Your task to perform on an android device: What's the weather going to be this weekend? Image 0: 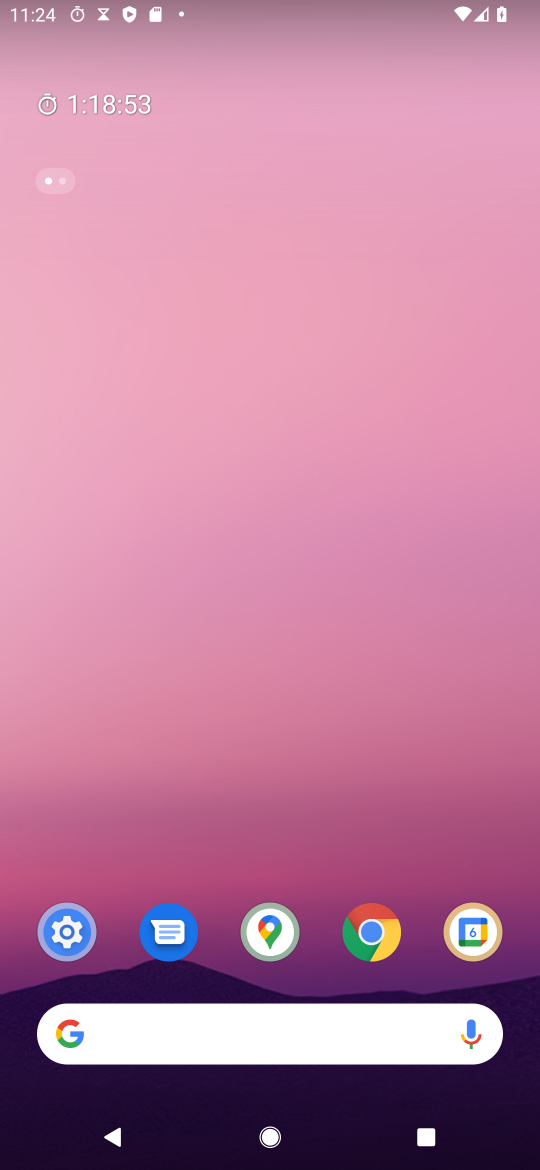
Step 0: click (374, 948)
Your task to perform on an android device: What's the weather going to be this weekend? Image 1: 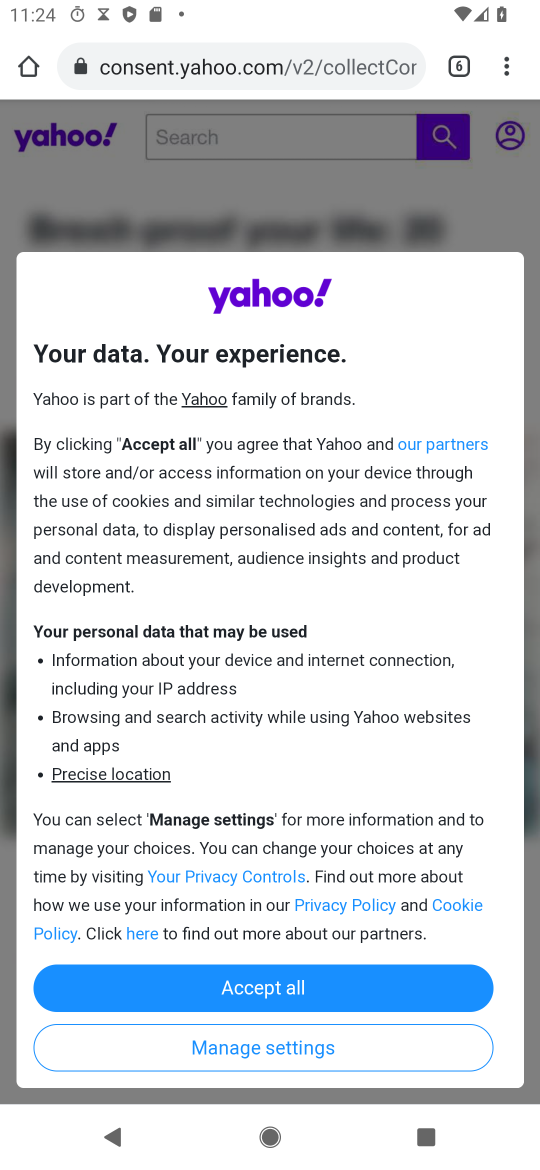
Step 1: click (139, 79)
Your task to perform on an android device: What's the weather going to be this weekend? Image 2: 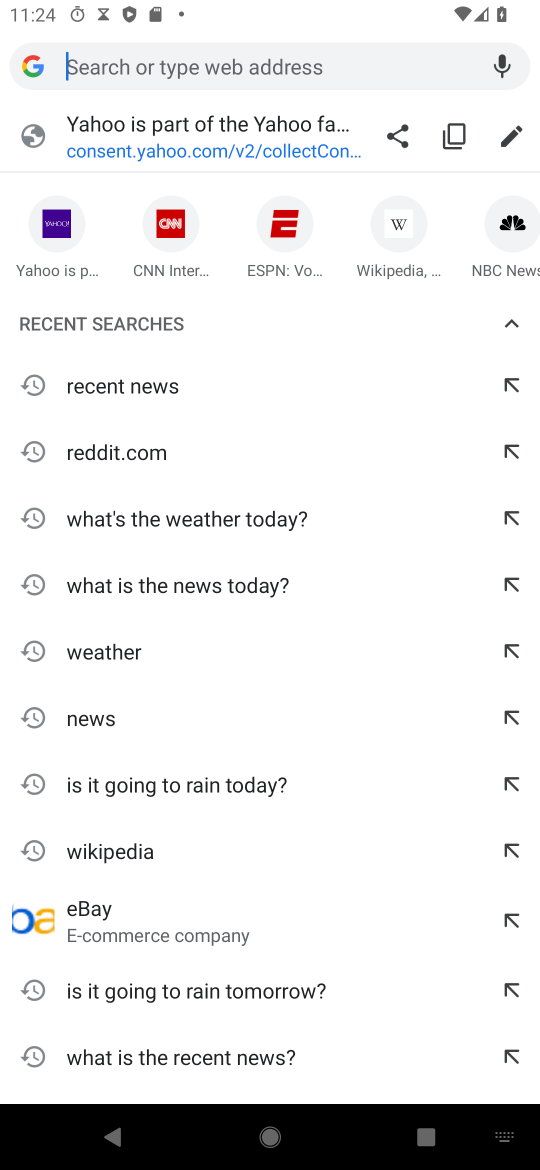
Step 2: type "What's the weather going to be this weekend?"
Your task to perform on an android device: What's the weather going to be this weekend? Image 3: 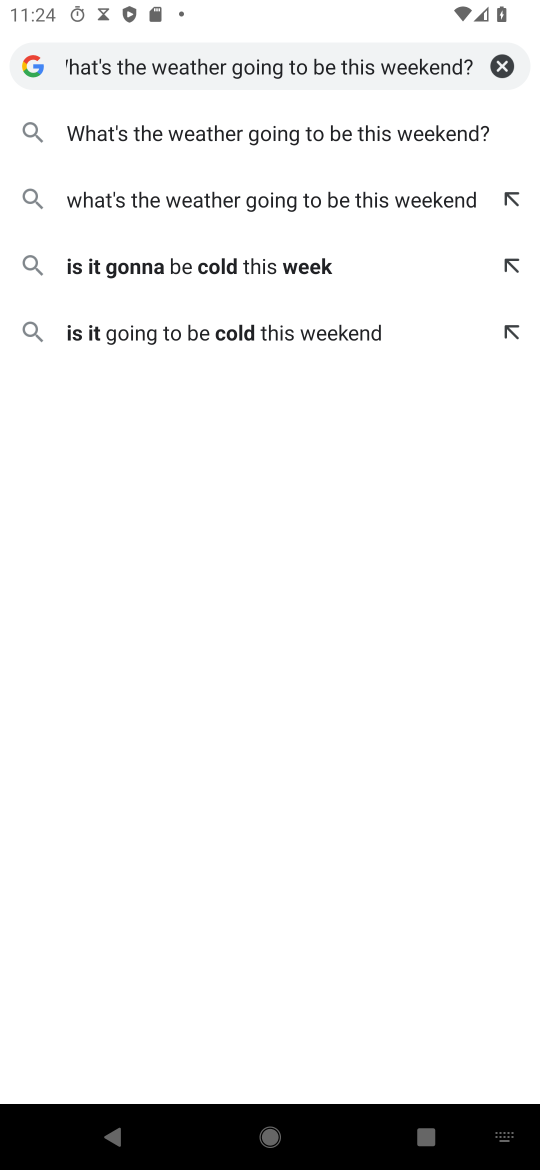
Step 3: click (210, 139)
Your task to perform on an android device: What's the weather going to be this weekend? Image 4: 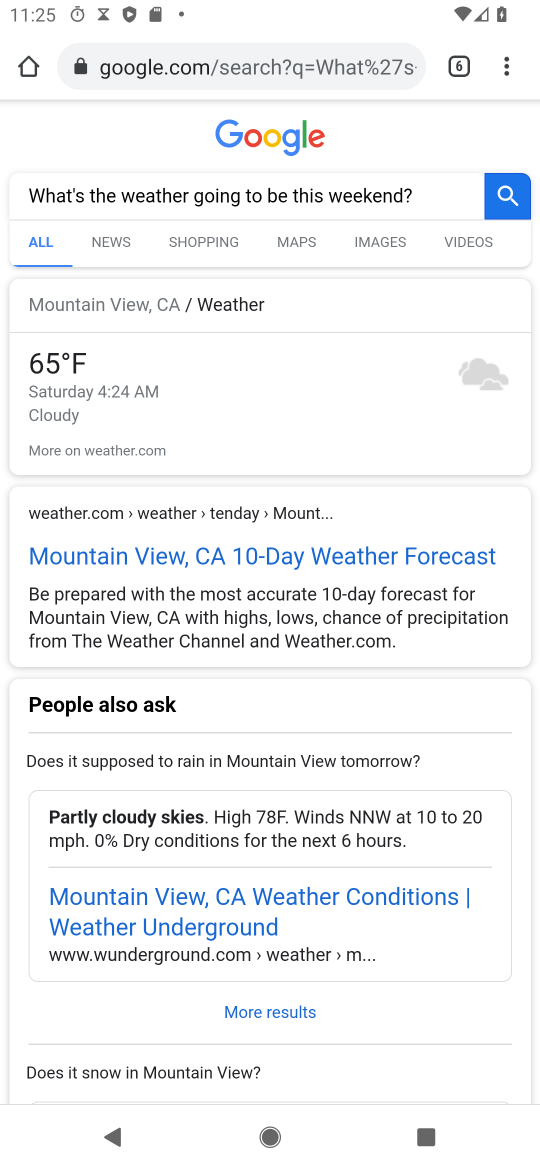
Step 4: task complete